Your task to perform on an android device: allow cookies in the chrome app Image 0: 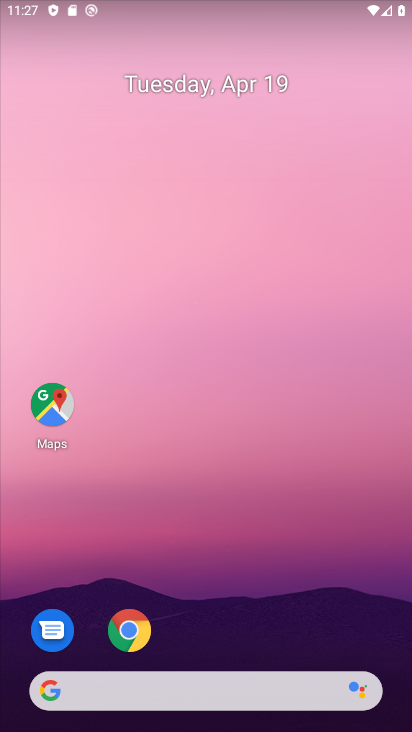
Step 0: drag from (238, 626) to (258, 59)
Your task to perform on an android device: allow cookies in the chrome app Image 1: 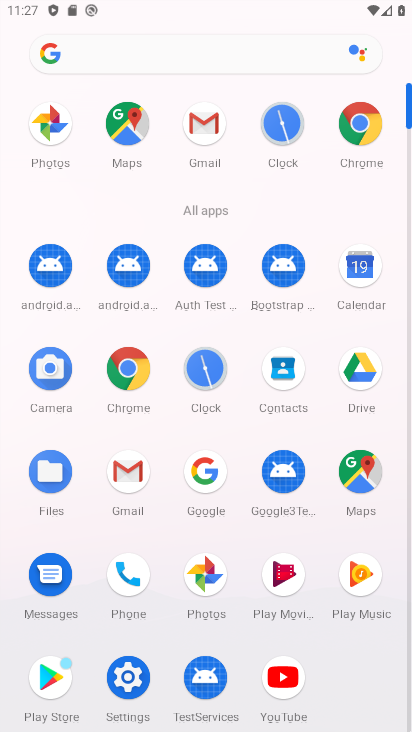
Step 1: drag from (250, 194) to (279, 18)
Your task to perform on an android device: allow cookies in the chrome app Image 2: 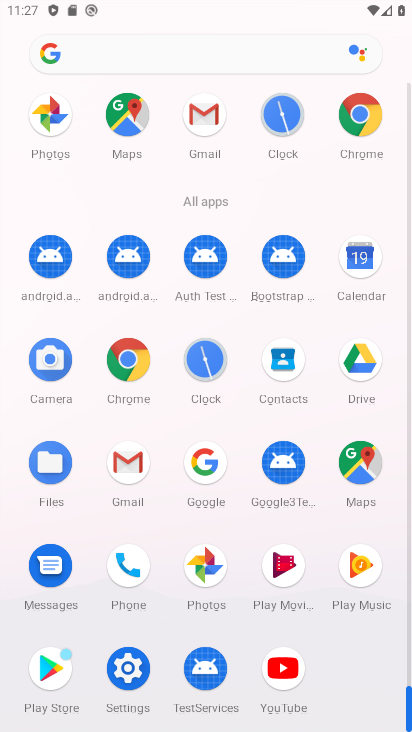
Step 2: click (131, 357)
Your task to perform on an android device: allow cookies in the chrome app Image 3: 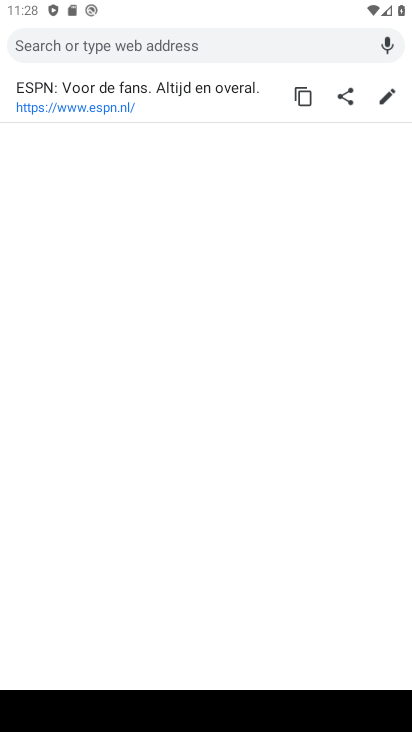
Step 3: press back button
Your task to perform on an android device: allow cookies in the chrome app Image 4: 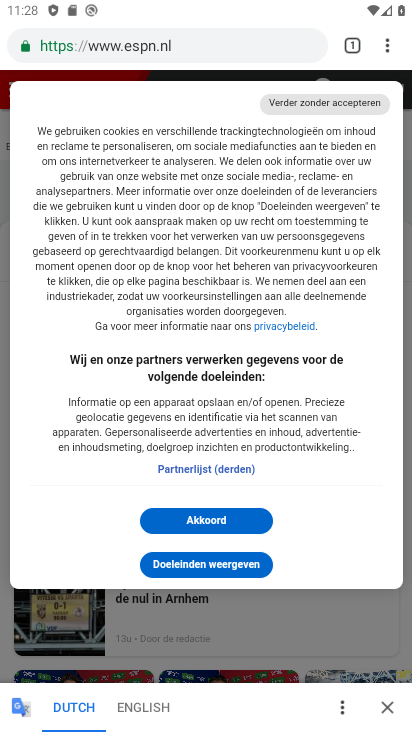
Step 4: drag from (385, 47) to (247, 537)
Your task to perform on an android device: allow cookies in the chrome app Image 5: 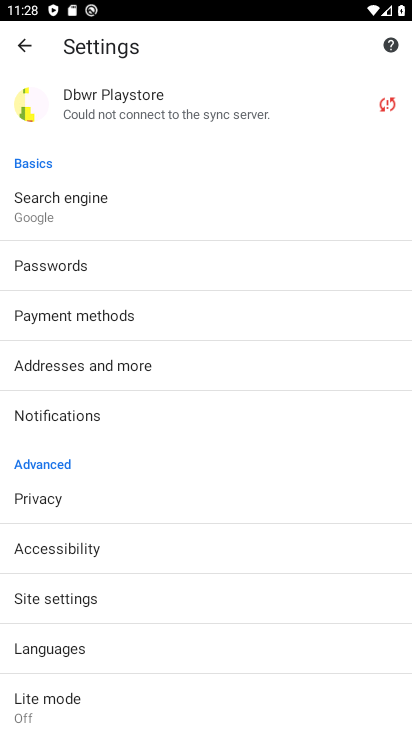
Step 5: drag from (200, 503) to (255, 283)
Your task to perform on an android device: allow cookies in the chrome app Image 6: 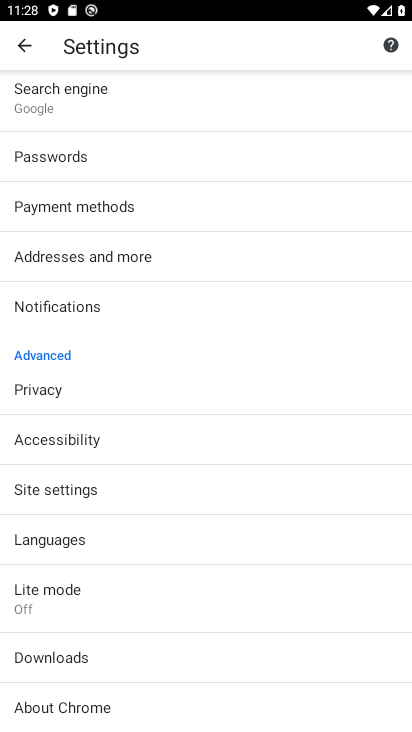
Step 6: click (57, 487)
Your task to perform on an android device: allow cookies in the chrome app Image 7: 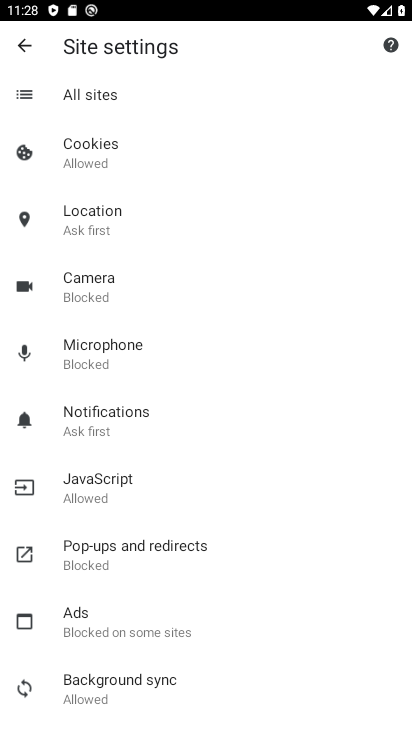
Step 7: click (86, 155)
Your task to perform on an android device: allow cookies in the chrome app Image 8: 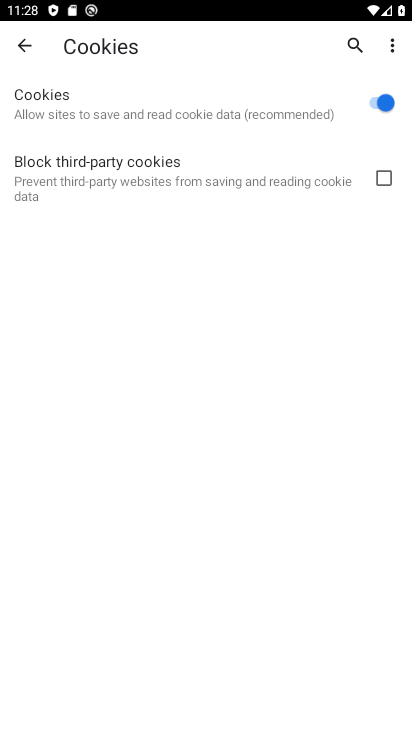
Step 8: task complete